Your task to perform on an android device: Open internet settings Image 0: 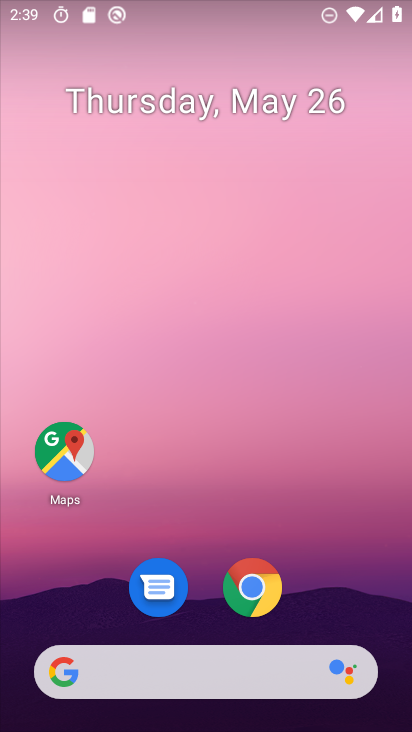
Step 0: drag from (293, 473) to (293, 118)
Your task to perform on an android device: Open internet settings Image 1: 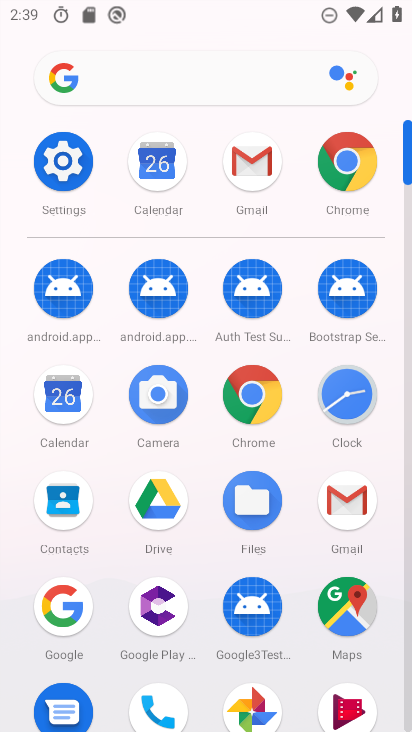
Step 1: click (62, 151)
Your task to perform on an android device: Open internet settings Image 2: 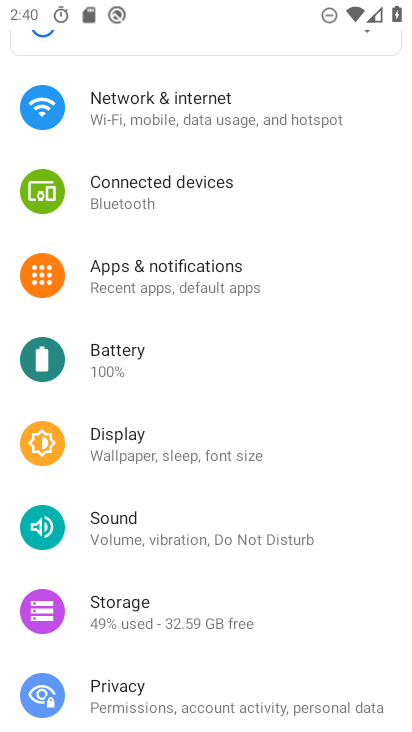
Step 2: click (191, 112)
Your task to perform on an android device: Open internet settings Image 3: 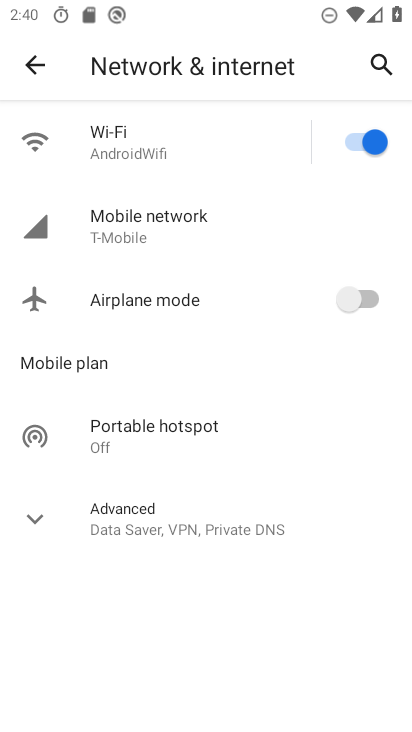
Step 3: click (150, 519)
Your task to perform on an android device: Open internet settings Image 4: 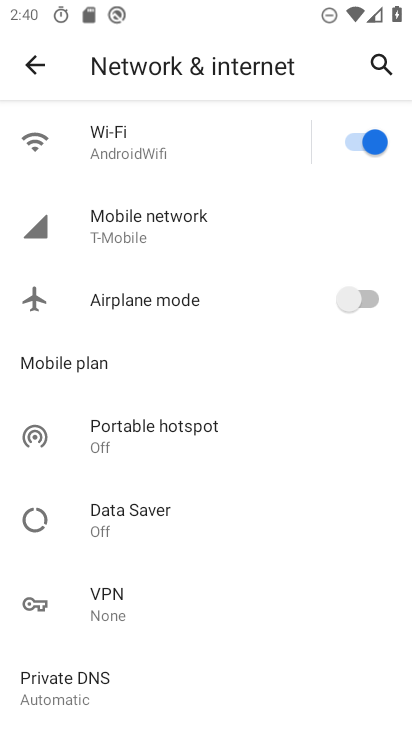
Step 4: task complete